Your task to perform on an android device: check google app version Image 0: 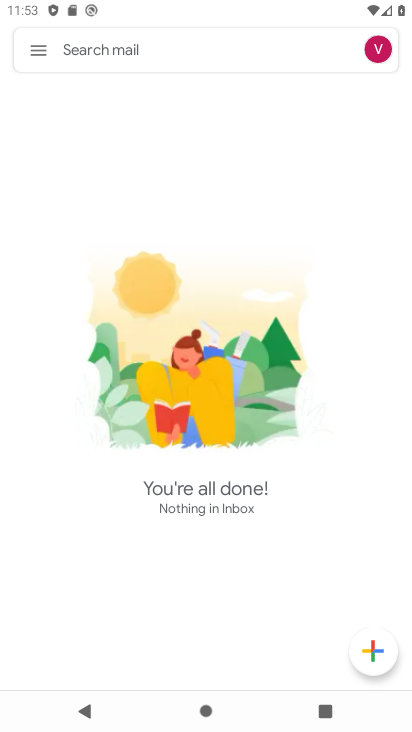
Step 0: drag from (252, 599) to (335, 339)
Your task to perform on an android device: check google app version Image 1: 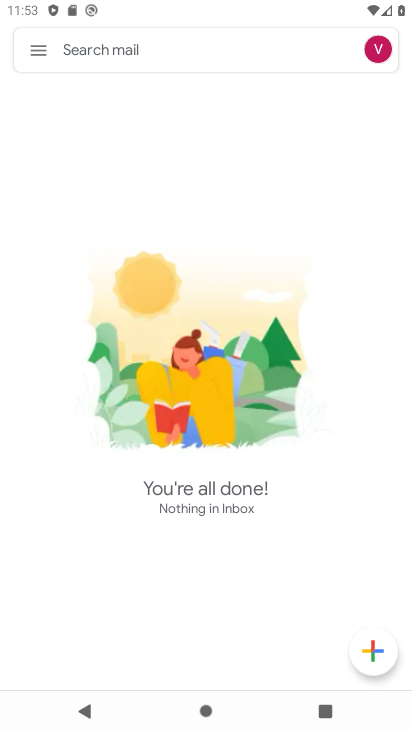
Step 1: click (306, 248)
Your task to perform on an android device: check google app version Image 2: 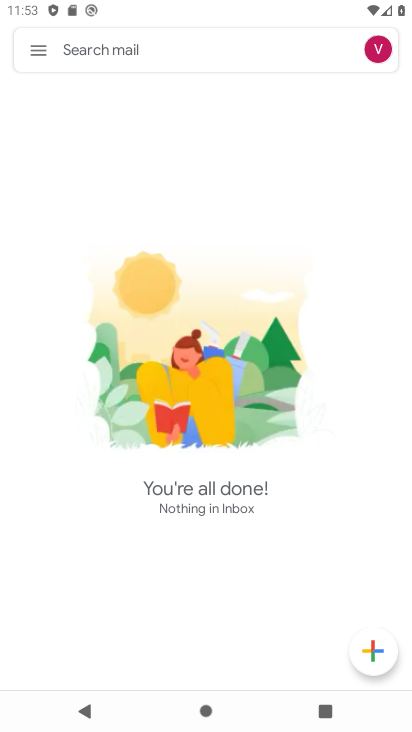
Step 2: click (29, 44)
Your task to perform on an android device: check google app version Image 3: 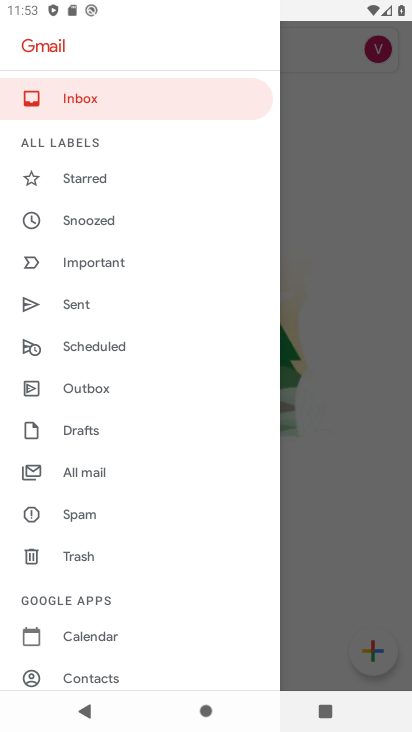
Step 3: drag from (92, 643) to (145, 148)
Your task to perform on an android device: check google app version Image 4: 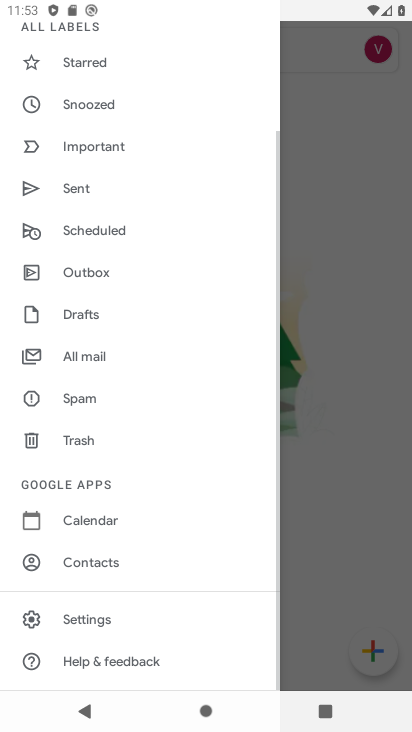
Step 4: click (98, 611)
Your task to perform on an android device: check google app version Image 5: 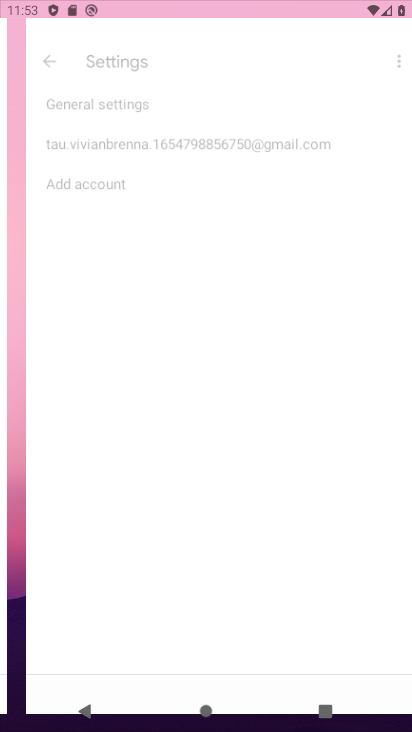
Step 5: drag from (110, 582) to (204, 125)
Your task to perform on an android device: check google app version Image 6: 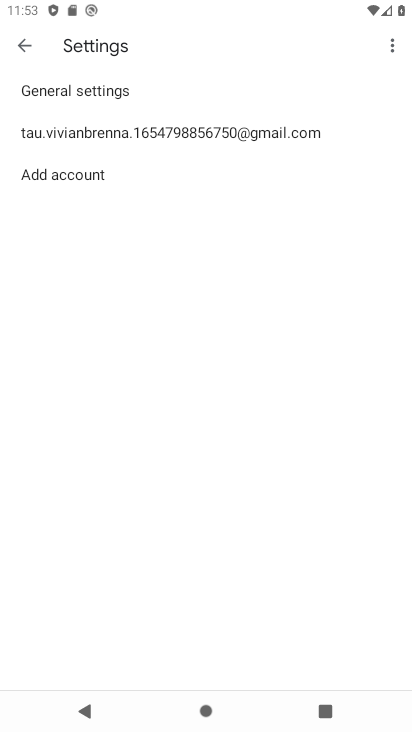
Step 6: click (141, 140)
Your task to perform on an android device: check google app version Image 7: 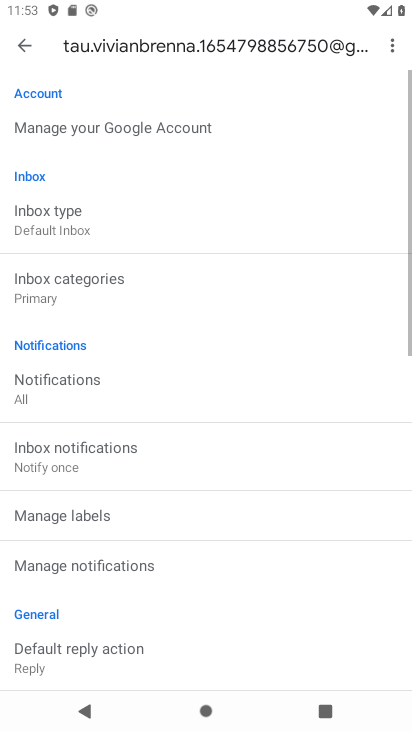
Step 7: drag from (204, 612) to (275, 149)
Your task to perform on an android device: check google app version Image 8: 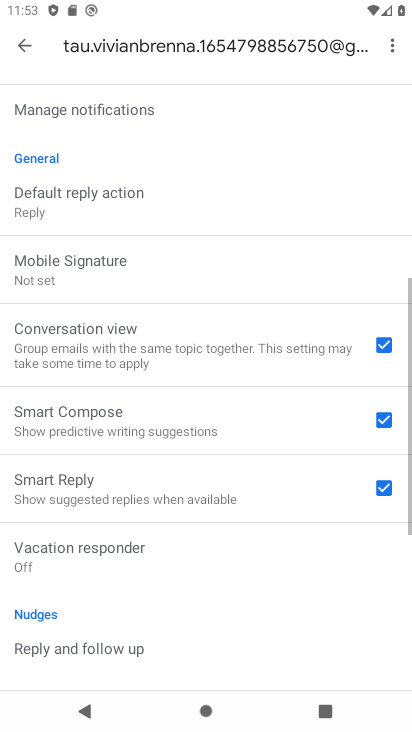
Step 8: drag from (165, 237) to (289, 678)
Your task to perform on an android device: check google app version Image 9: 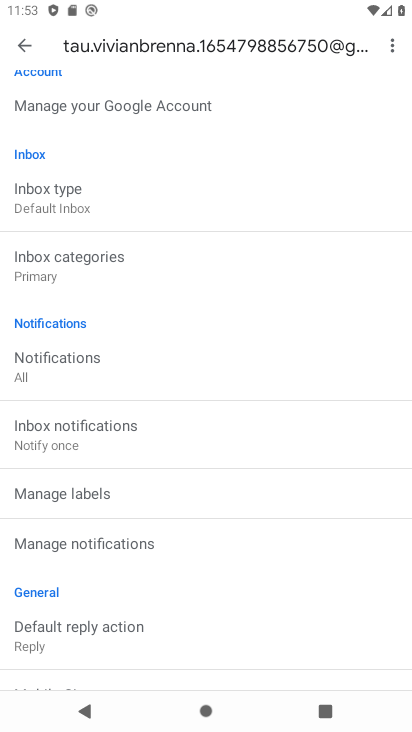
Step 9: drag from (127, 143) to (230, 611)
Your task to perform on an android device: check google app version Image 10: 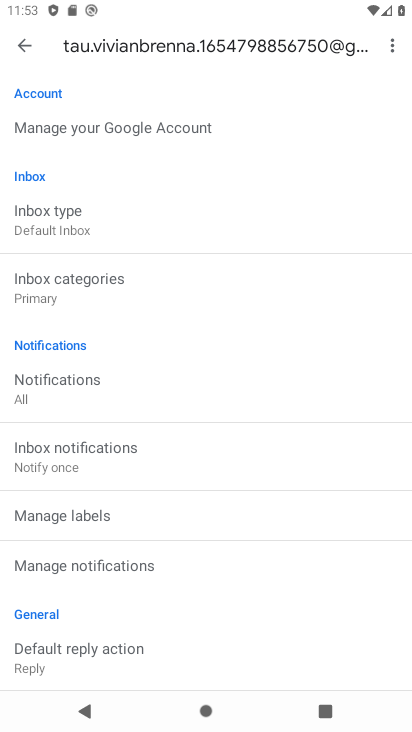
Step 10: drag from (139, 518) to (204, 233)
Your task to perform on an android device: check google app version Image 11: 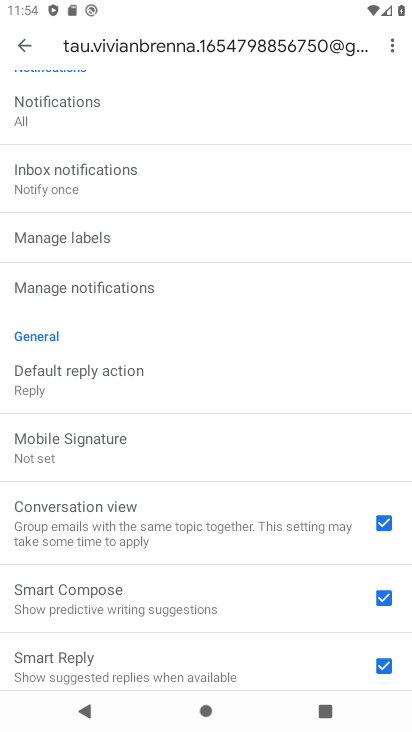
Step 11: drag from (155, 563) to (239, 287)
Your task to perform on an android device: check google app version Image 12: 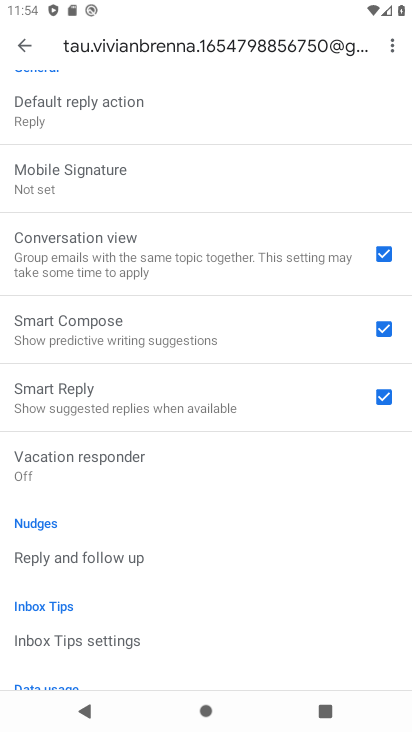
Step 12: drag from (134, 184) to (270, 691)
Your task to perform on an android device: check google app version Image 13: 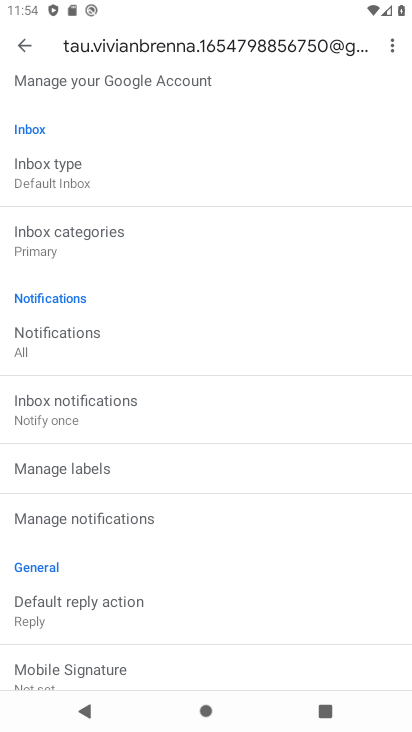
Step 13: click (28, 39)
Your task to perform on an android device: check google app version Image 14: 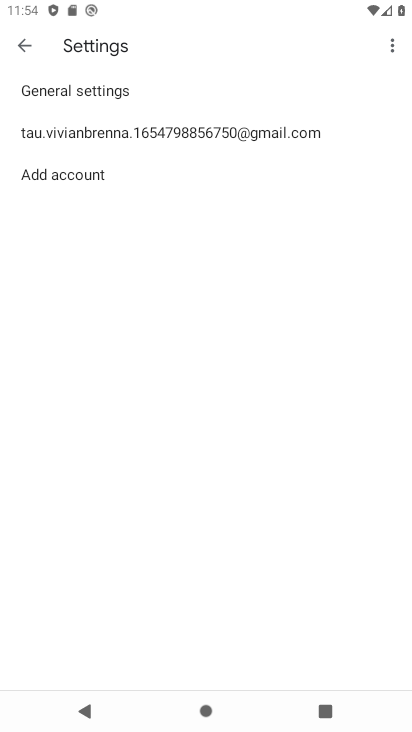
Step 14: press home button
Your task to perform on an android device: check google app version Image 15: 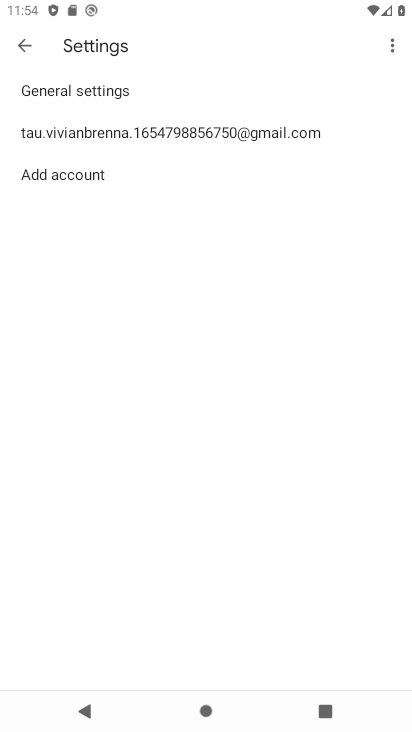
Step 15: drag from (129, 579) to (240, 115)
Your task to perform on an android device: check google app version Image 16: 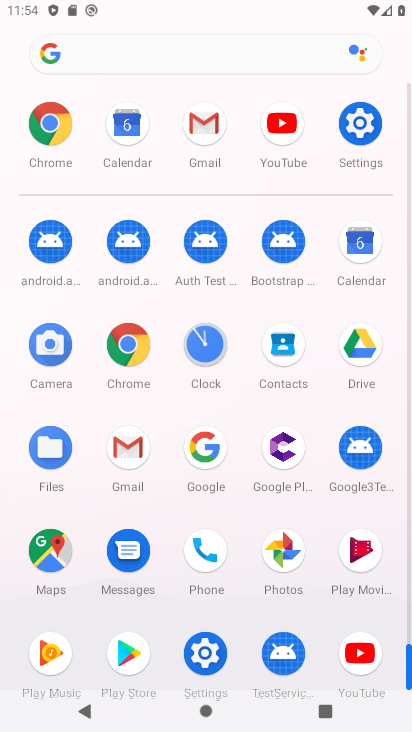
Step 16: click (193, 443)
Your task to perform on an android device: check google app version Image 17: 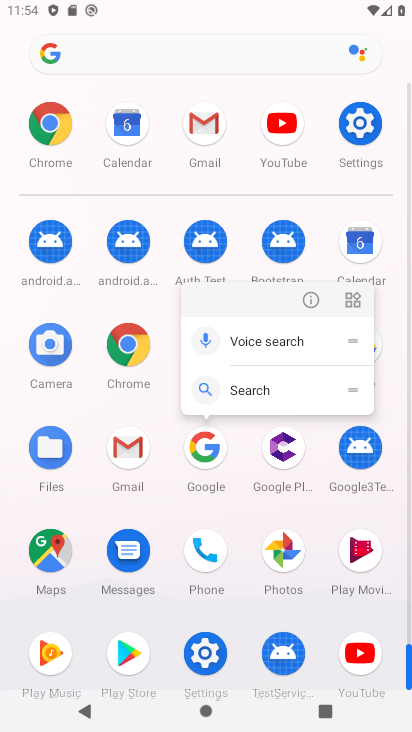
Step 17: click (315, 299)
Your task to perform on an android device: check google app version Image 18: 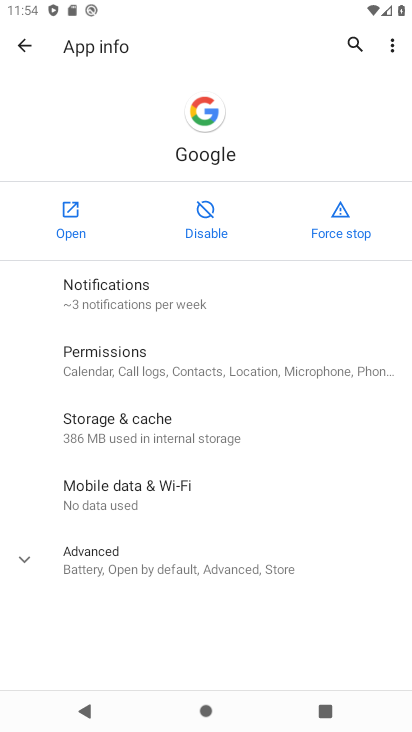
Step 18: click (60, 219)
Your task to perform on an android device: check google app version Image 19: 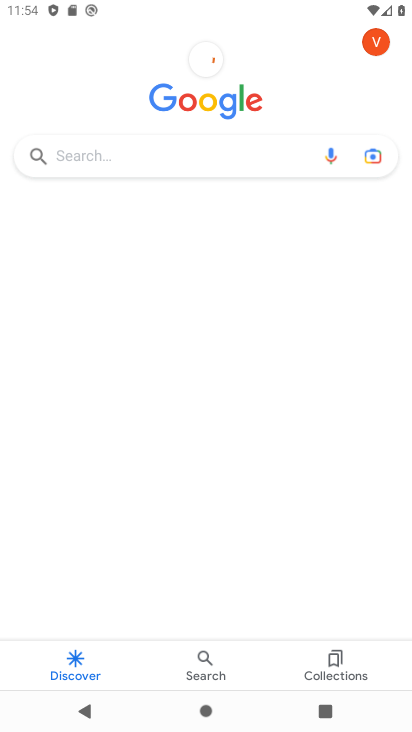
Step 19: click (372, 56)
Your task to perform on an android device: check google app version Image 20: 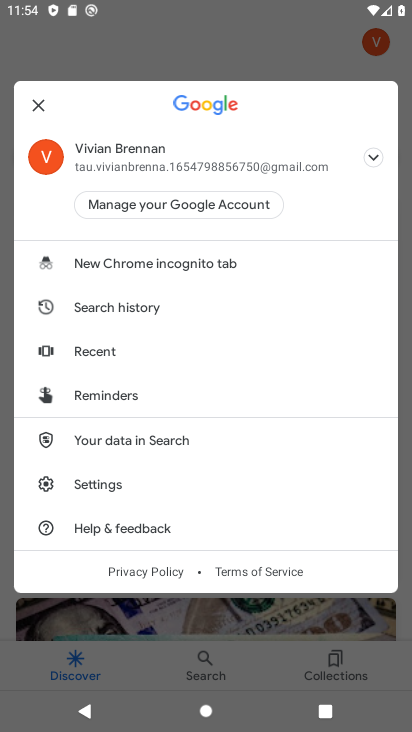
Step 20: click (372, 47)
Your task to perform on an android device: check google app version Image 21: 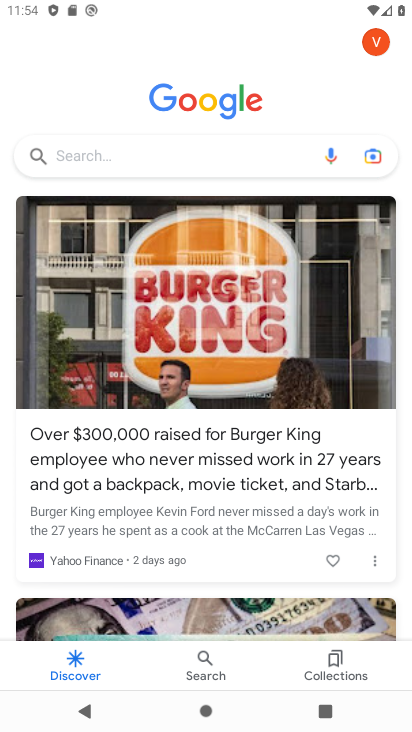
Step 21: click (387, 27)
Your task to perform on an android device: check google app version Image 22: 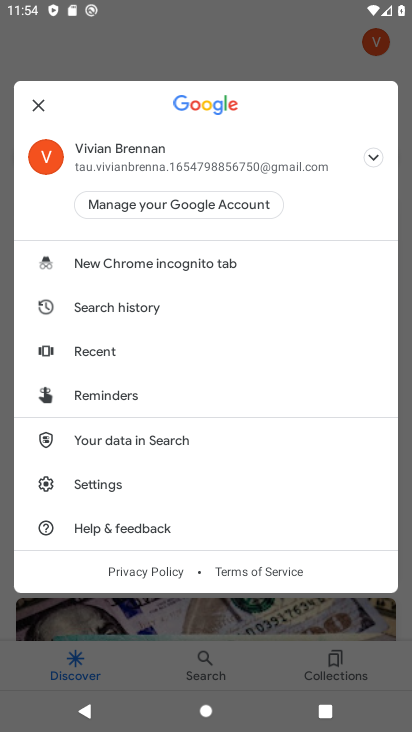
Step 22: click (123, 481)
Your task to perform on an android device: check google app version Image 23: 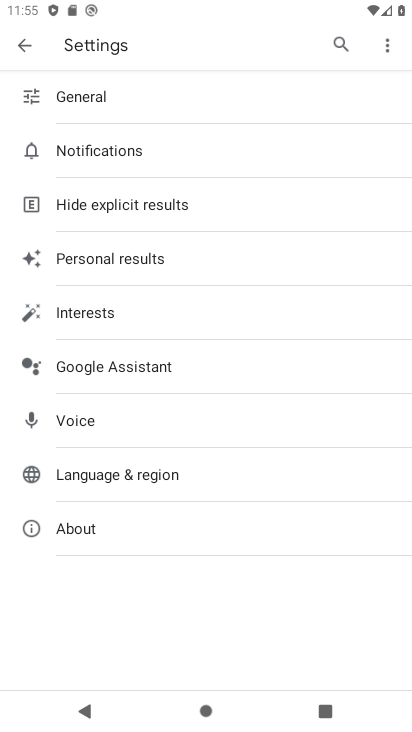
Step 23: click (102, 520)
Your task to perform on an android device: check google app version Image 24: 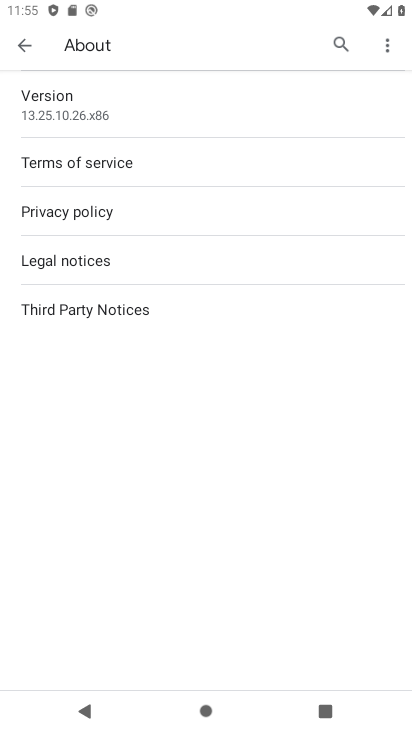
Step 24: click (106, 111)
Your task to perform on an android device: check google app version Image 25: 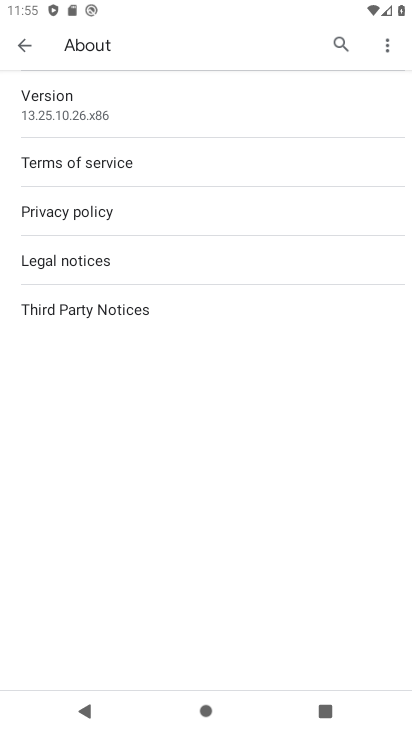
Step 25: click (138, 106)
Your task to perform on an android device: check google app version Image 26: 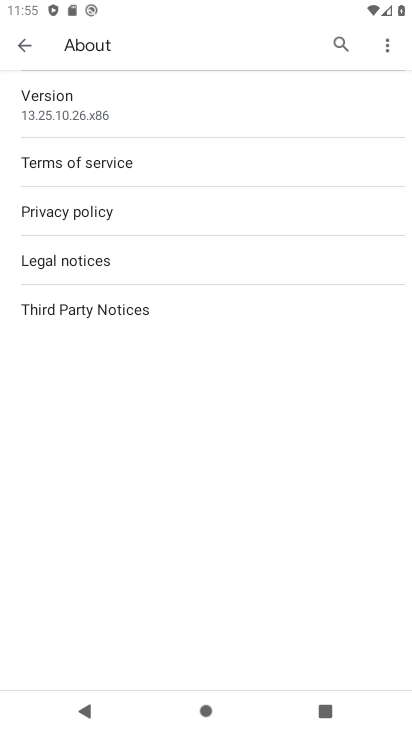
Step 26: task complete